Your task to perform on an android device: Go to Google Image 0: 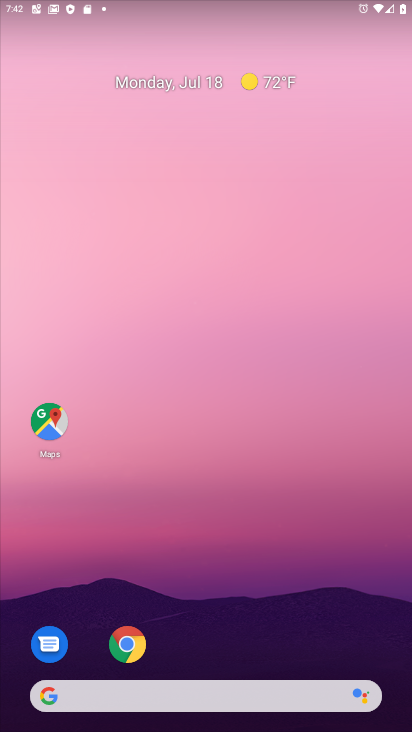
Step 0: drag from (383, 672) to (215, 20)
Your task to perform on an android device: Go to Google Image 1: 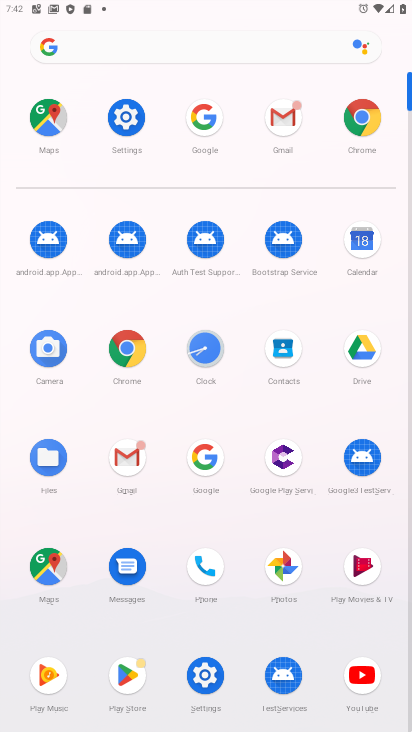
Step 1: click (209, 467)
Your task to perform on an android device: Go to Google Image 2: 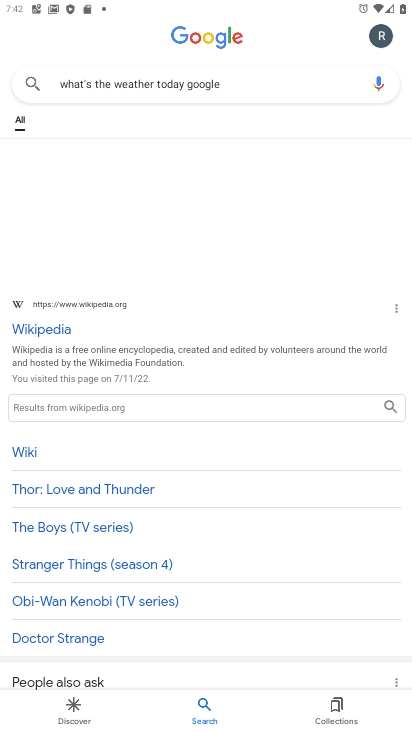
Step 2: task complete